Your task to perform on an android device: allow cookies in the chrome app Image 0: 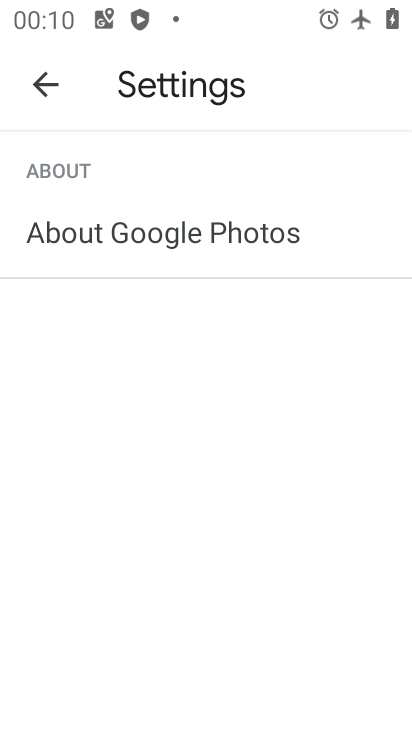
Step 0: press home button
Your task to perform on an android device: allow cookies in the chrome app Image 1: 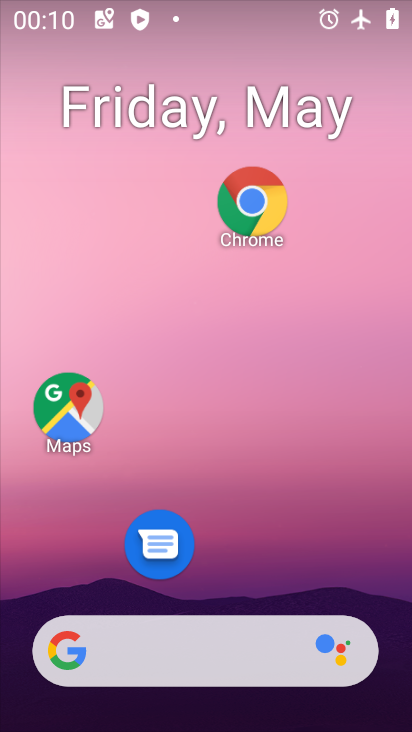
Step 1: click (250, 193)
Your task to perform on an android device: allow cookies in the chrome app Image 2: 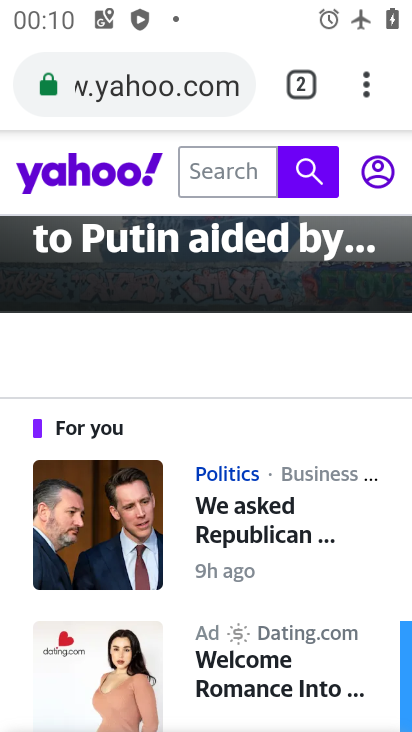
Step 2: click (367, 77)
Your task to perform on an android device: allow cookies in the chrome app Image 3: 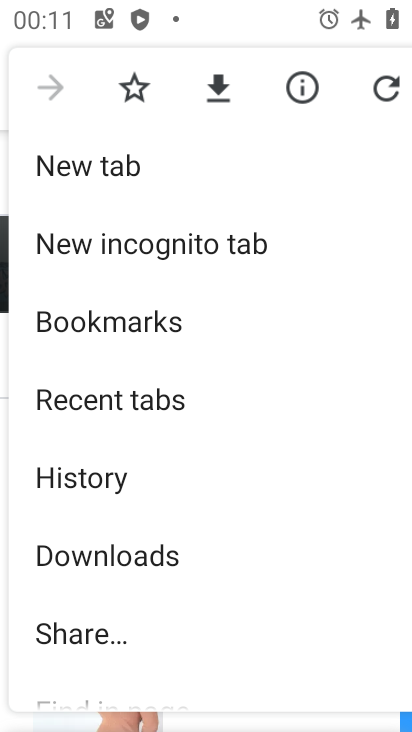
Step 3: drag from (200, 642) to (224, 179)
Your task to perform on an android device: allow cookies in the chrome app Image 4: 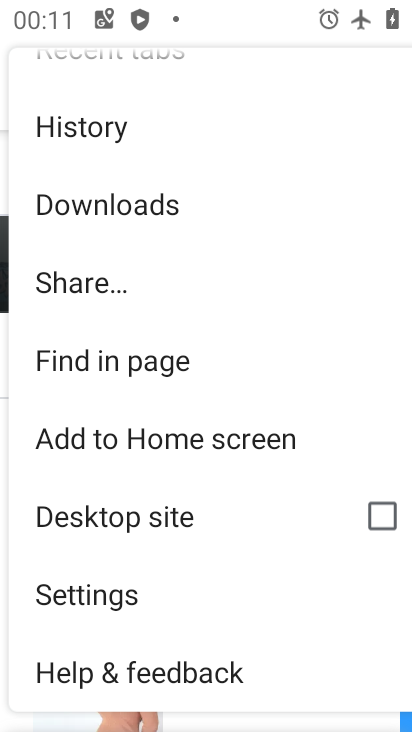
Step 4: click (145, 592)
Your task to perform on an android device: allow cookies in the chrome app Image 5: 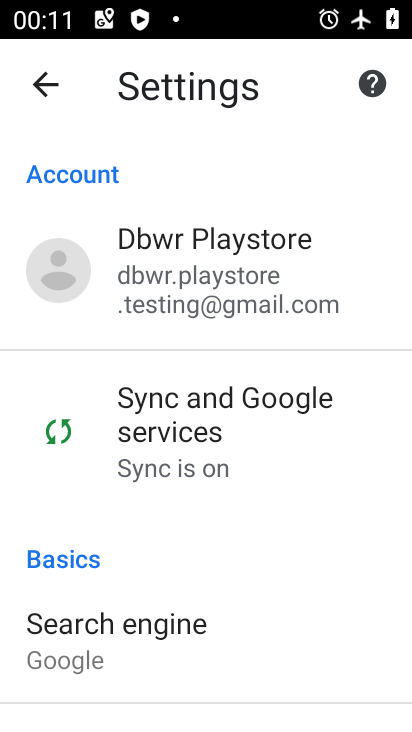
Step 5: drag from (208, 663) to (264, 146)
Your task to perform on an android device: allow cookies in the chrome app Image 6: 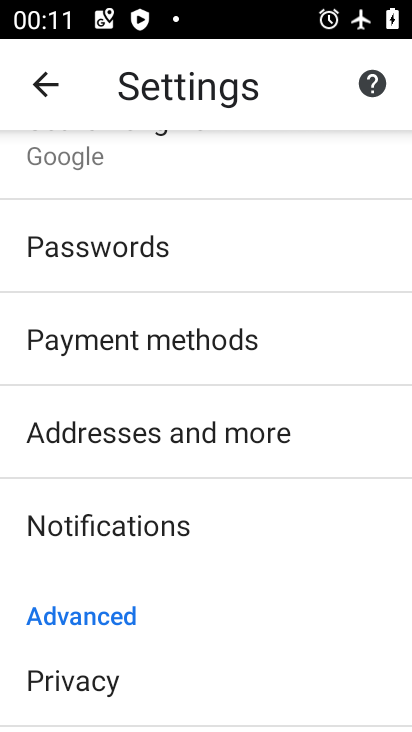
Step 6: drag from (216, 670) to (222, 246)
Your task to perform on an android device: allow cookies in the chrome app Image 7: 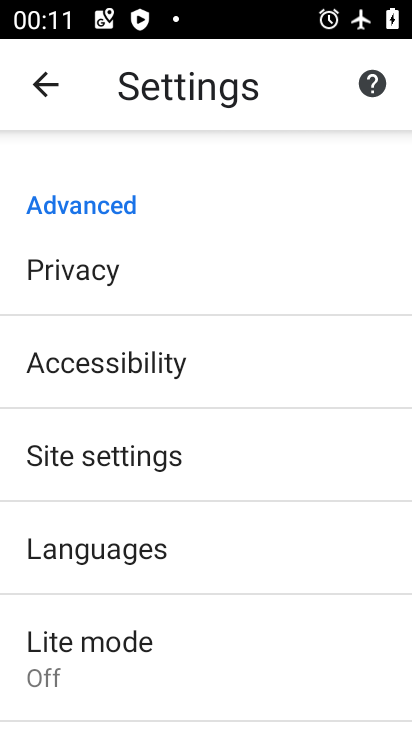
Step 7: click (214, 453)
Your task to perform on an android device: allow cookies in the chrome app Image 8: 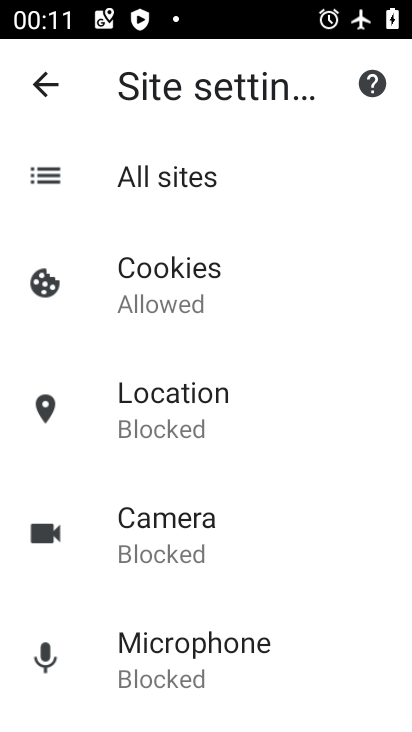
Step 8: click (98, 287)
Your task to perform on an android device: allow cookies in the chrome app Image 9: 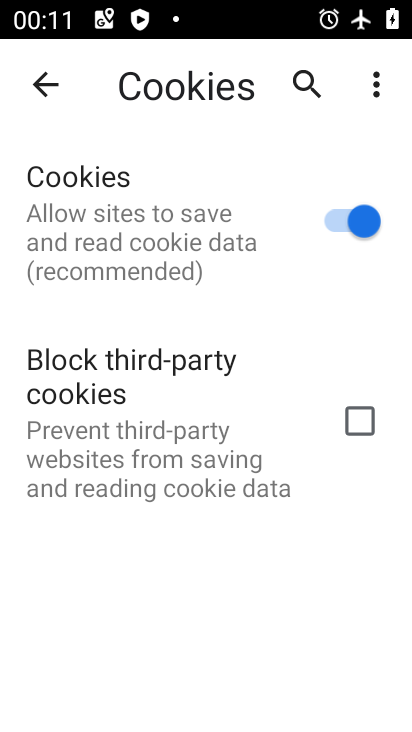
Step 9: task complete